Your task to perform on an android device: Show me productivity apps on the Play Store Image 0: 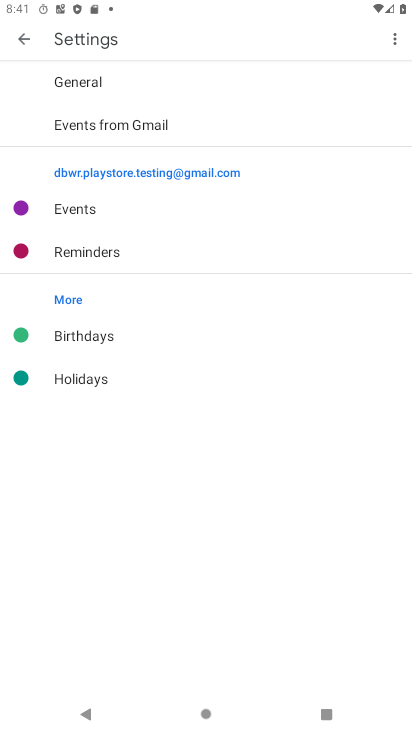
Step 0: press home button
Your task to perform on an android device: Show me productivity apps on the Play Store Image 1: 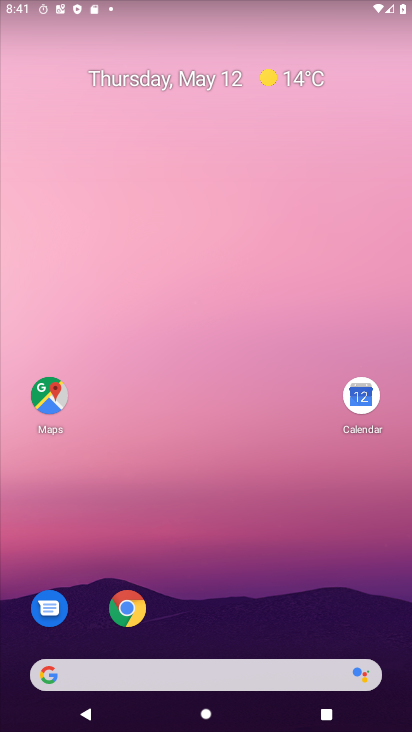
Step 1: drag from (285, 503) to (224, 205)
Your task to perform on an android device: Show me productivity apps on the Play Store Image 2: 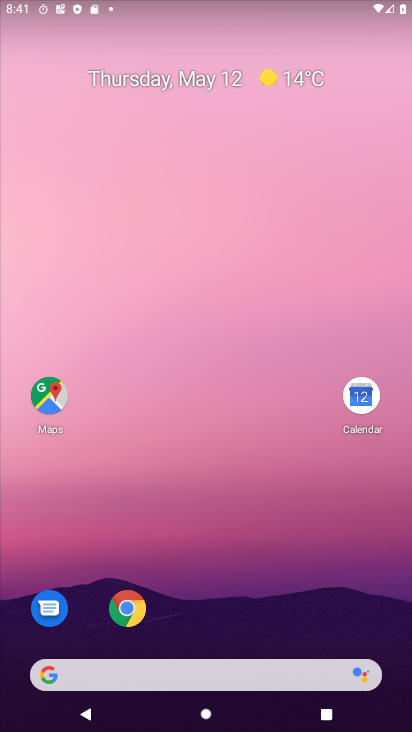
Step 2: drag from (272, 594) to (240, 123)
Your task to perform on an android device: Show me productivity apps on the Play Store Image 3: 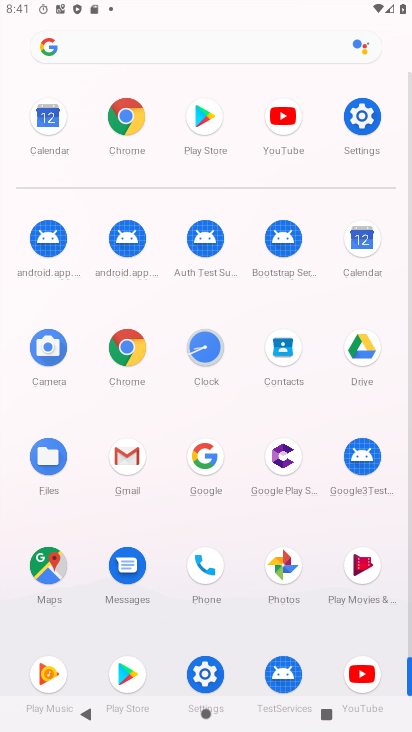
Step 3: click (202, 122)
Your task to perform on an android device: Show me productivity apps on the Play Store Image 4: 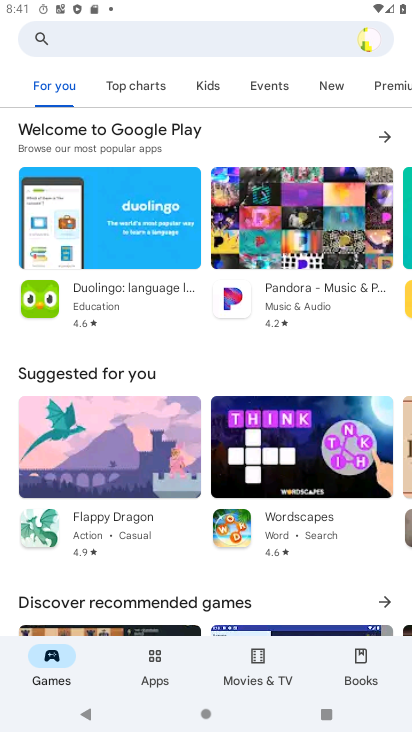
Step 4: click (172, 25)
Your task to perform on an android device: Show me productivity apps on the Play Store Image 5: 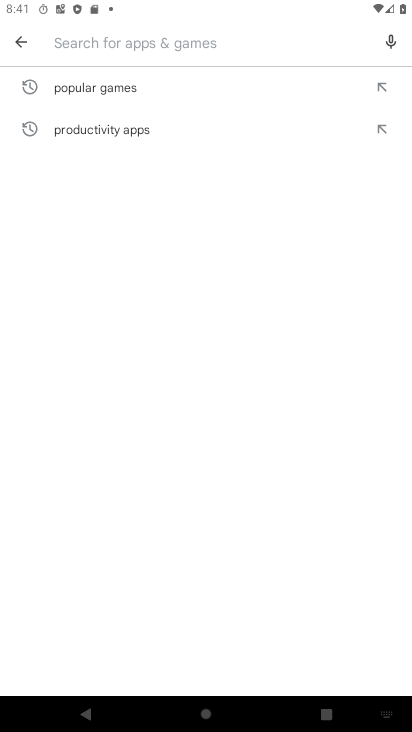
Step 5: click (171, 95)
Your task to perform on an android device: Show me productivity apps on the Play Store Image 6: 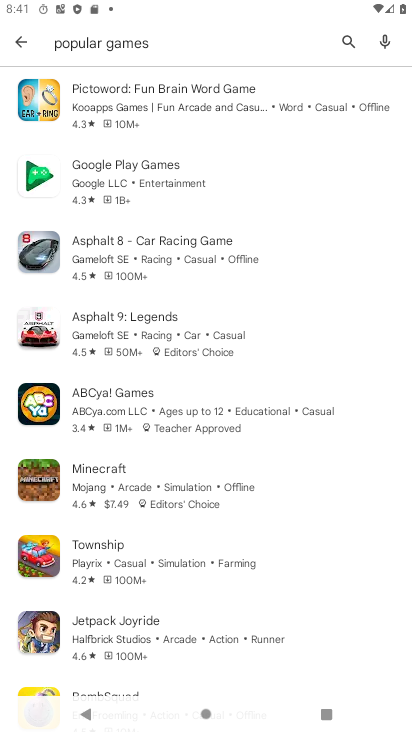
Step 6: press back button
Your task to perform on an android device: Show me productivity apps on the Play Store Image 7: 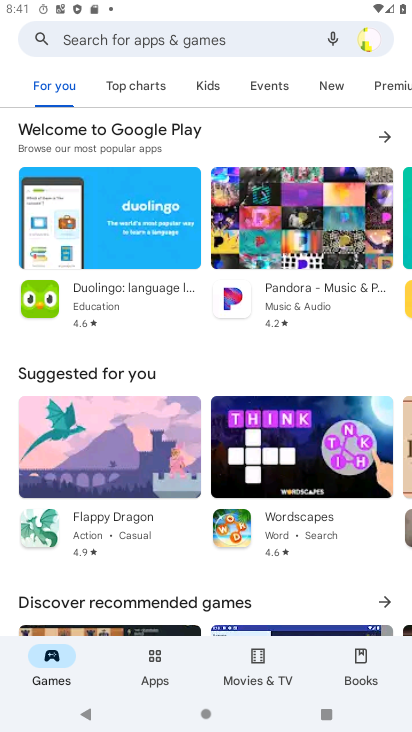
Step 7: click (139, 32)
Your task to perform on an android device: Show me productivity apps on the Play Store Image 8: 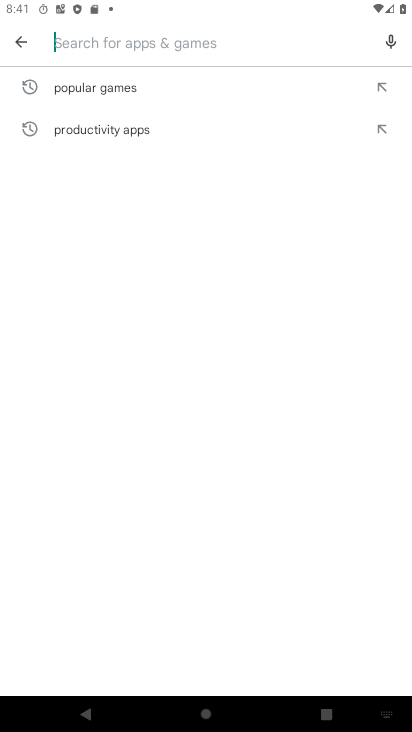
Step 8: click (154, 133)
Your task to perform on an android device: Show me productivity apps on the Play Store Image 9: 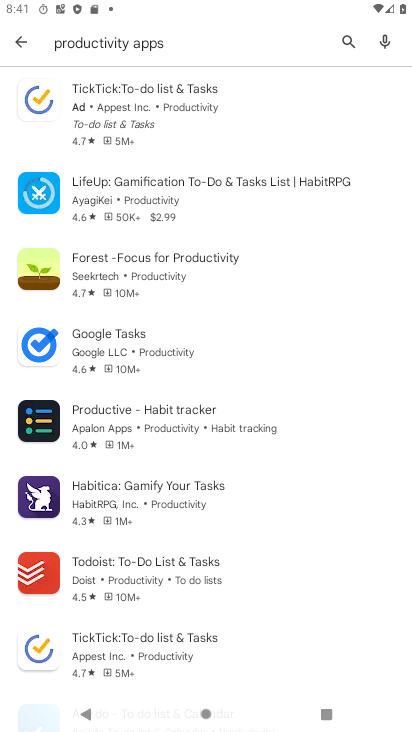
Step 9: task complete